Your task to perform on an android device: Open CNN.com Image 0: 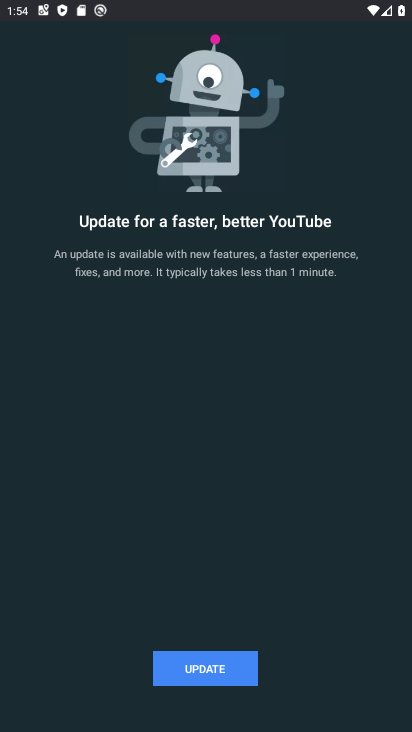
Step 0: press home button
Your task to perform on an android device: Open CNN.com Image 1: 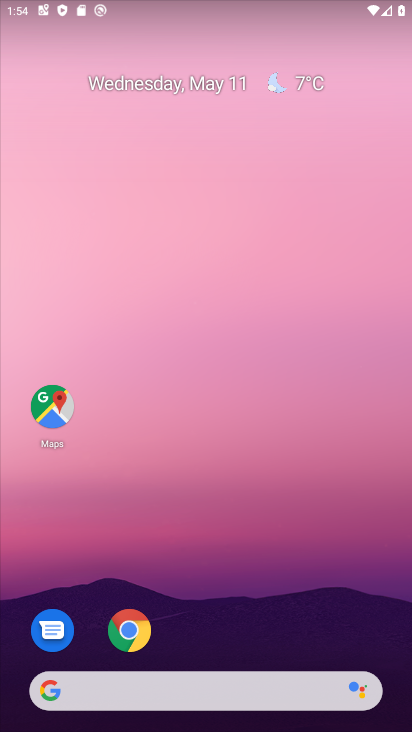
Step 1: drag from (376, 621) to (196, 1)
Your task to perform on an android device: Open CNN.com Image 2: 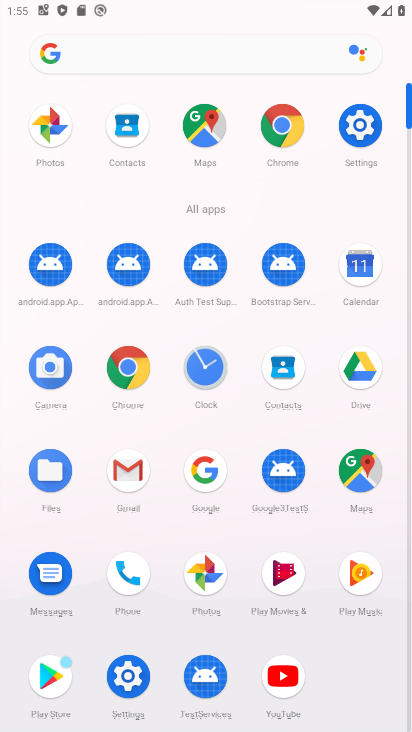
Step 2: click (139, 363)
Your task to perform on an android device: Open CNN.com Image 3: 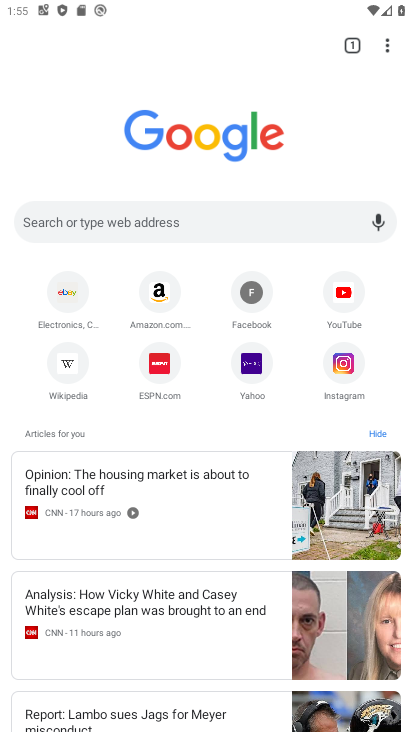
Step 3: click (212, 220)
Your task to perform on an android device: Open CNN.com Image 4: 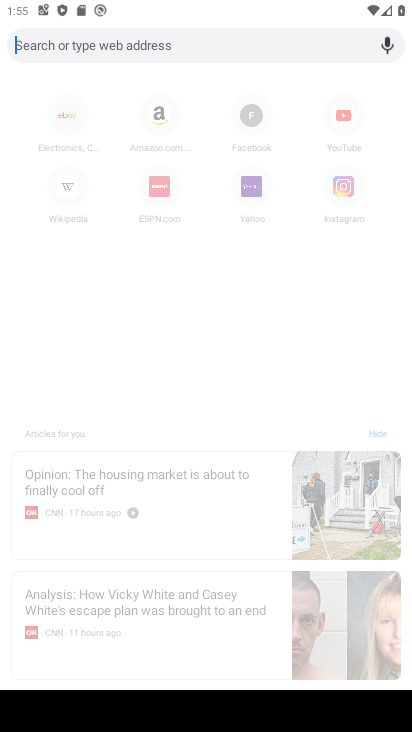
Step 4: type "cnn.com"
Your task to perform on an android device: Open CNN.com Image 5: 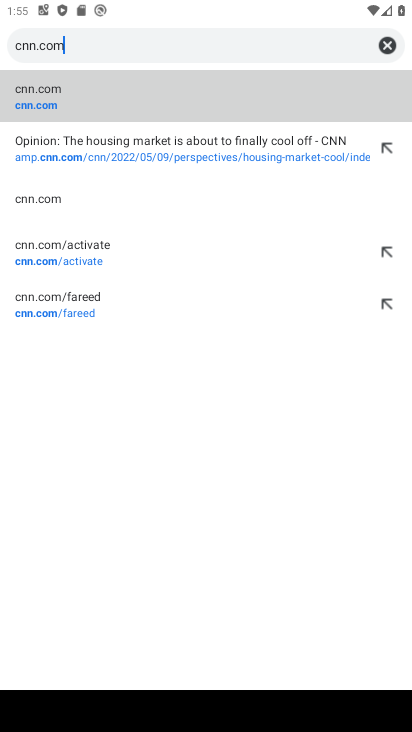
Step 5: click (128, 116)
Your task to perform on an android device: Open CNN.com Image 6: 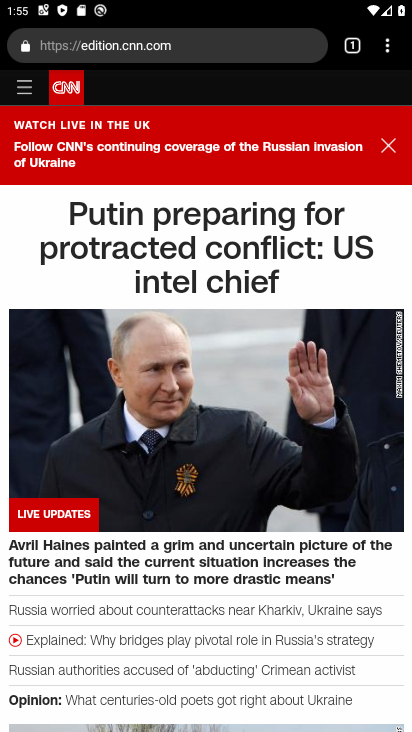
Step 6: task complete